Your task to perform on an android device: refresh tabs in the chrome app Image 0: 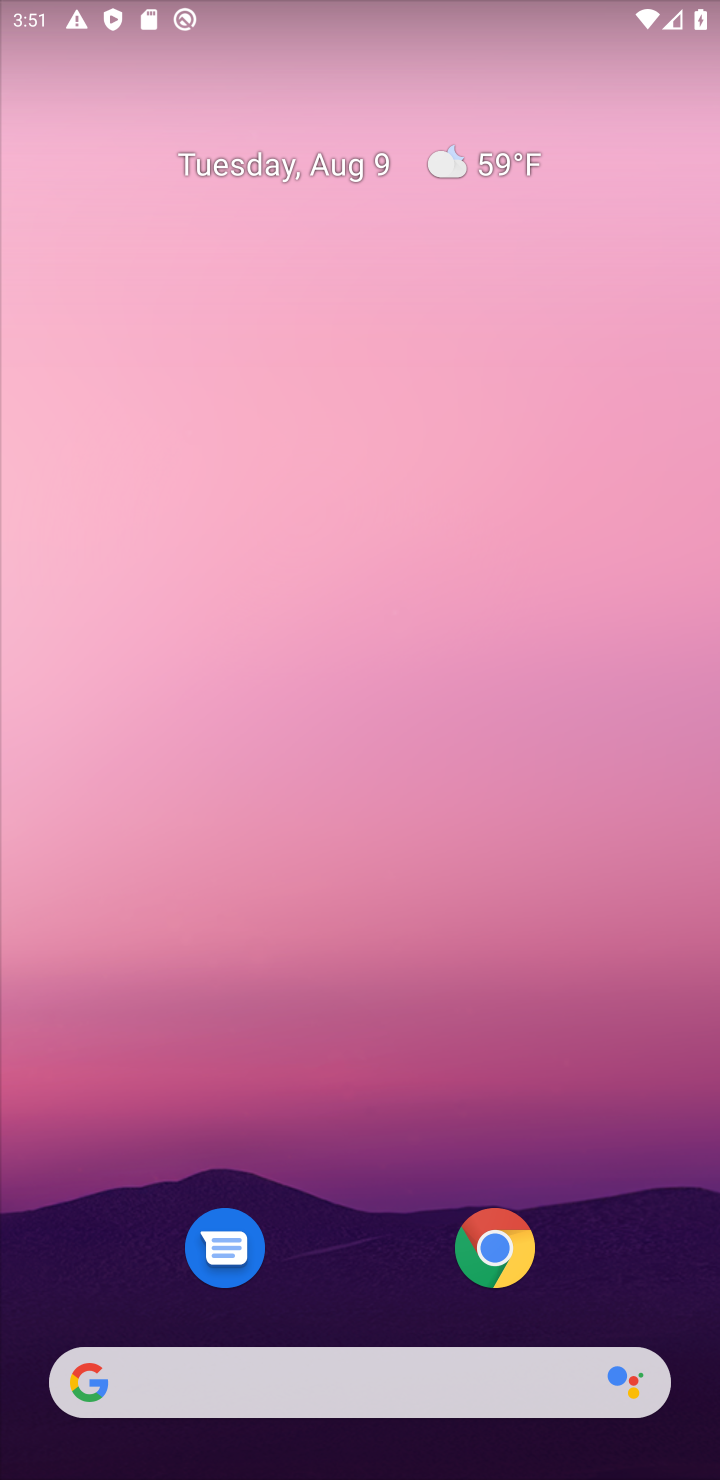
Step 0: drag from (345, 1221) to (95, 555)
Your task to perform on an android device: refresh tabs in the chrome app Image 1: 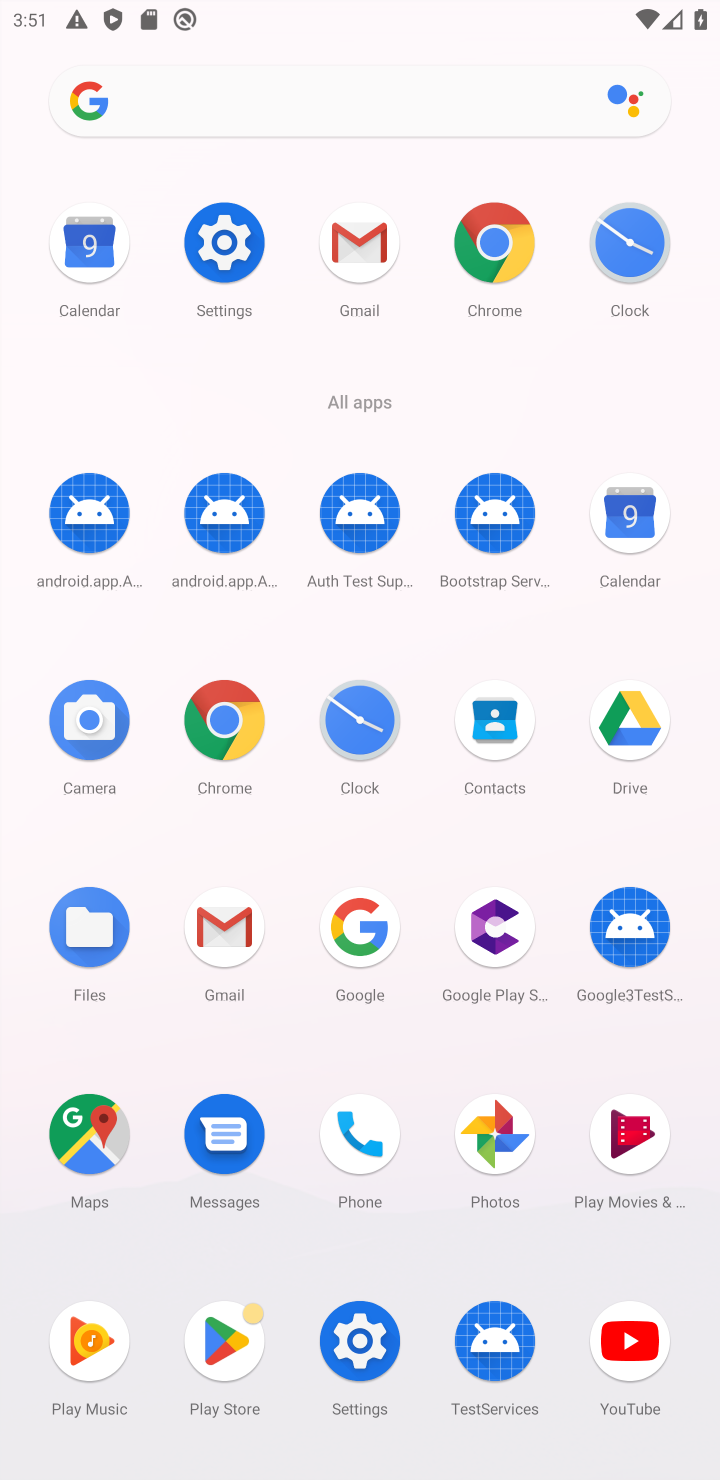
Step 1: click (232, 723)
Your task to perform on an android device: refresh tabs in the chrome app Image 2: 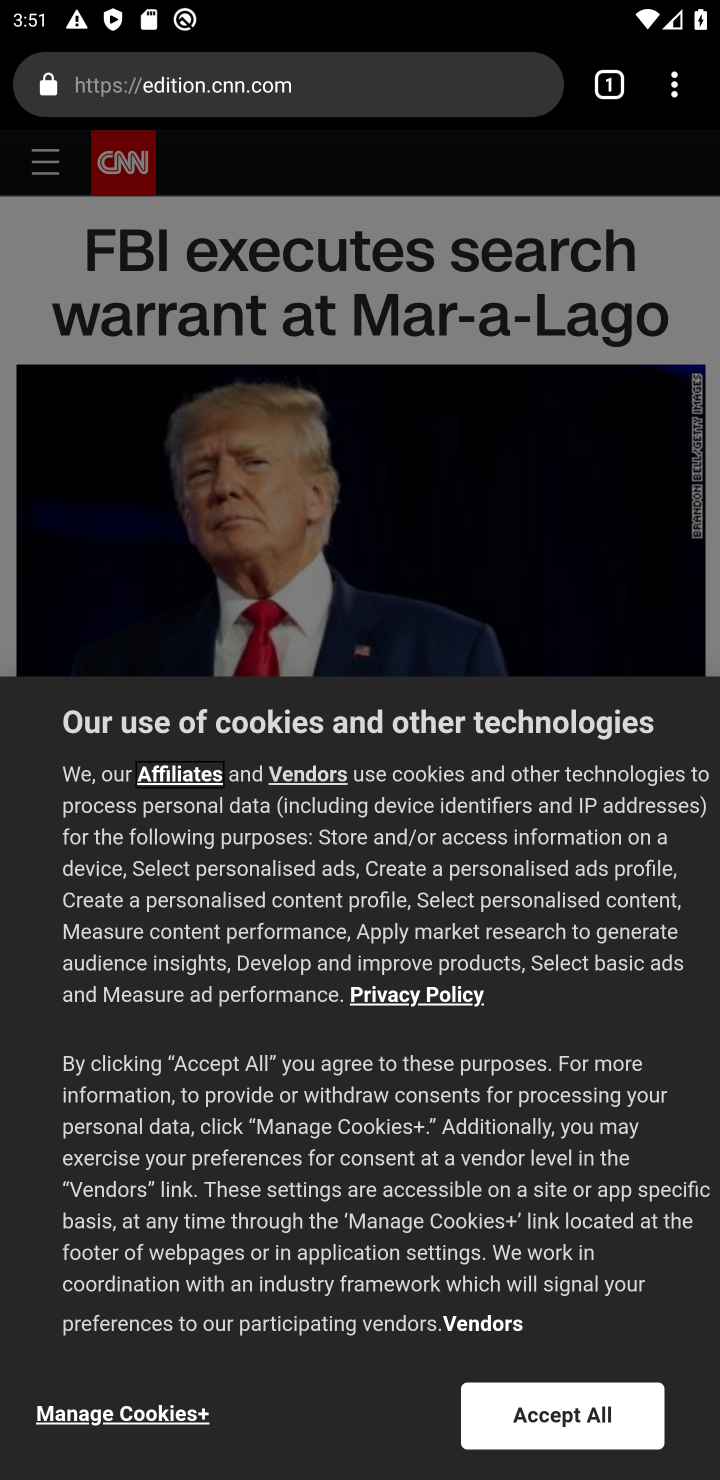
Step 2: click (677, 103)
Your task to perform on an android device: refresh tabs in the chrome app Image 3: 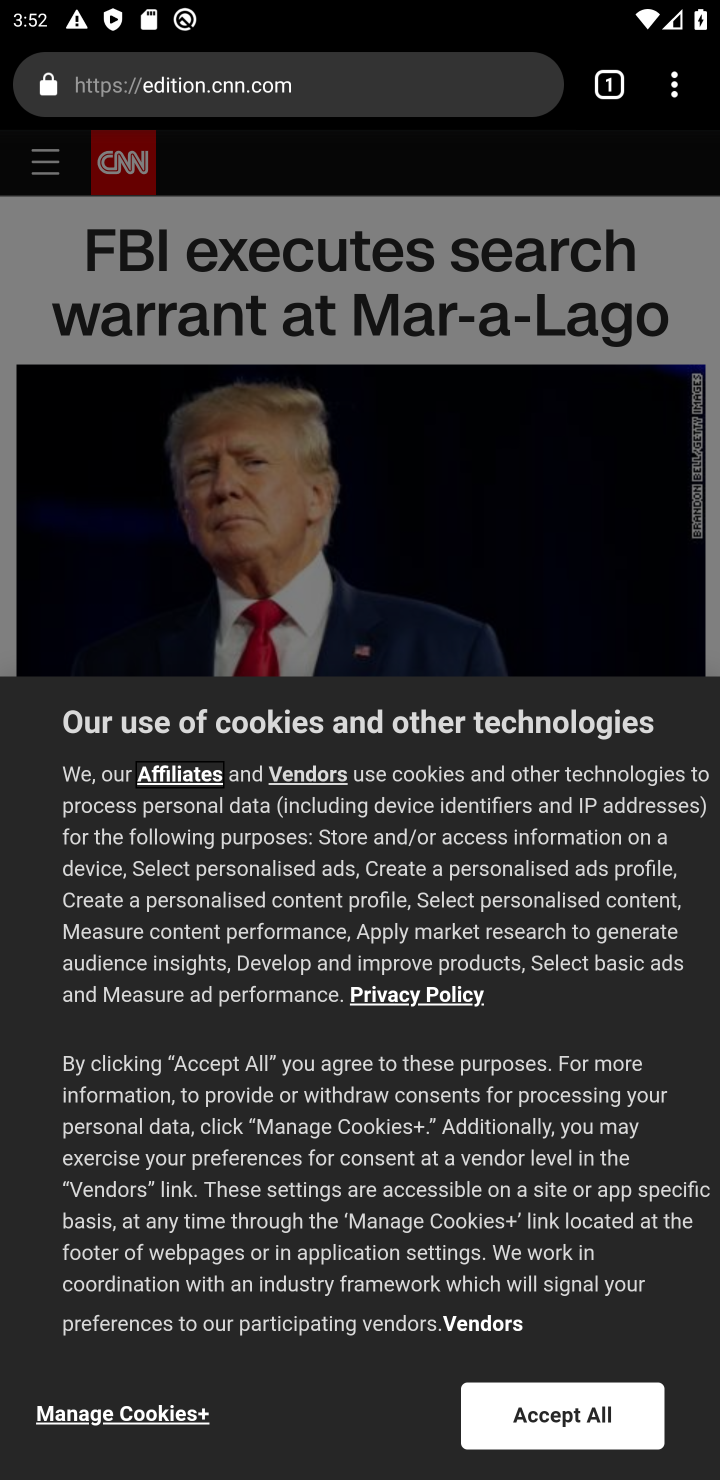
Step 3: task complete